Your task to perform on an android device: Go to Google Image 0: 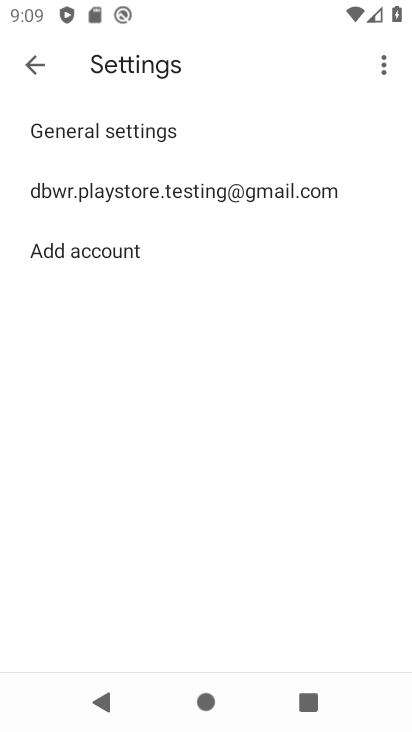
Step 0: press home button
Your task to perform on an android device: Go to Google Image 1: 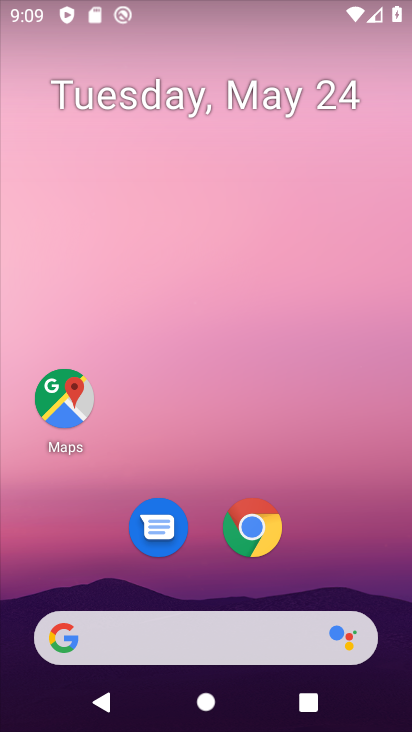
Step 1: click (162, 640)
Your task to perform on an android device: Go to Google Image 2: 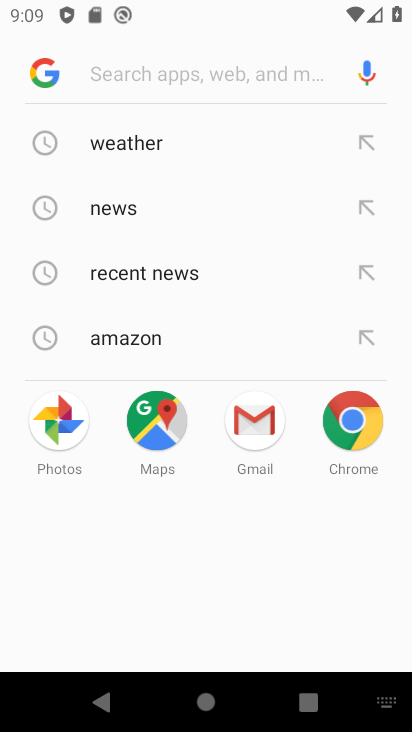
Step 2: type "google"
Your task to perform on an android device: Go to Google Image 3: 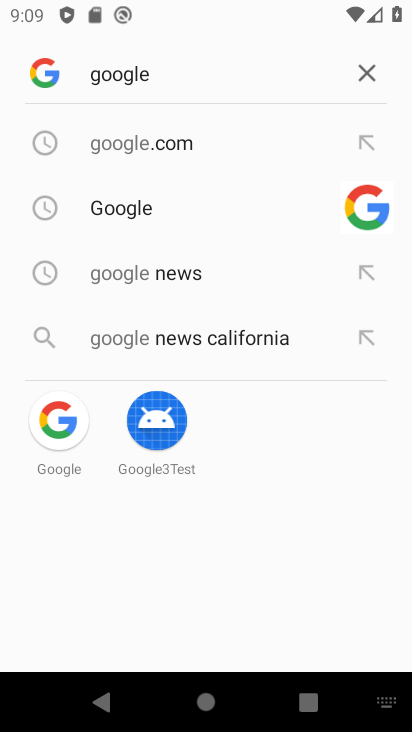
Step 3: click (172, 143)
Your task to perform on an android device: Go to Google Image 4: 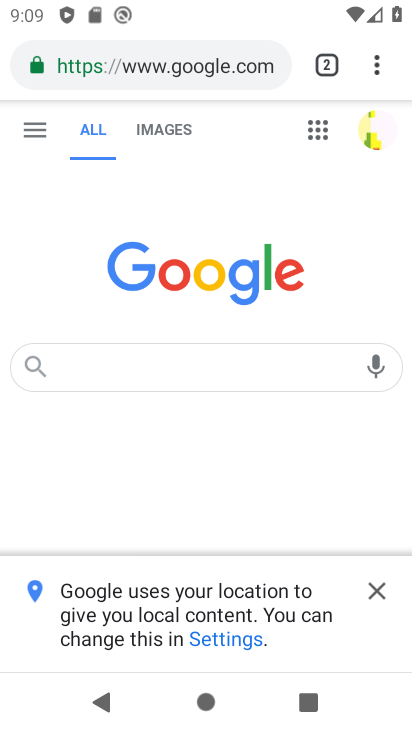
Step 4: task complete